Your task to perform on an android device: Empty the shopping cart on bestbuy.com. Add logitech g903 to the cart on bestbuy.com Image 0: 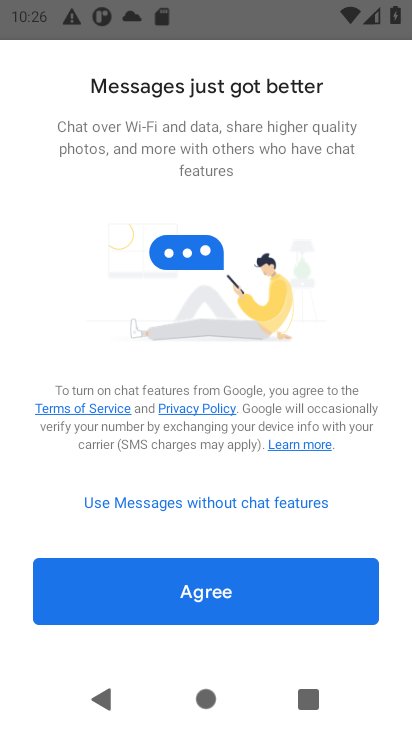
Step 0: press home button
Your task to perform on an android device: Empty the shopping cart on bestbuy.com. Add logitech g903 to the cart on bestbuy.com Image 1: 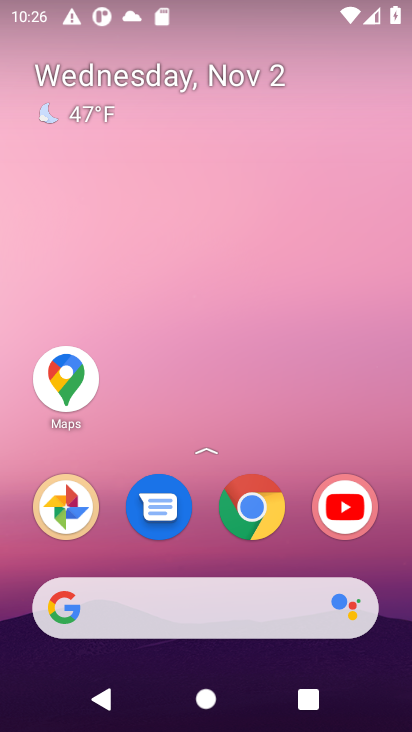
Step 1: click (195, 616)
Your task to perform on an android device: Empty the shopping cart on bestbuy.com. Add logitech g903 to the cart on bestbuy.com Image 2: 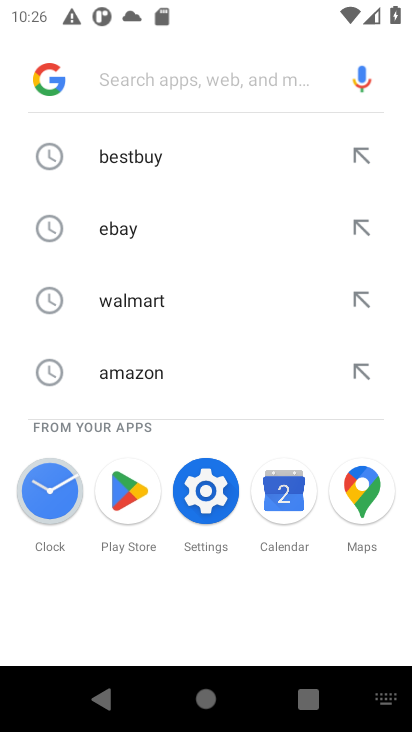
Step 2: click (116, 165)
Your task to perform on an android device: Empty the shopping cart on bestbuy.com. Add logitech g903 to the cart on bestbuy.com Image 3: 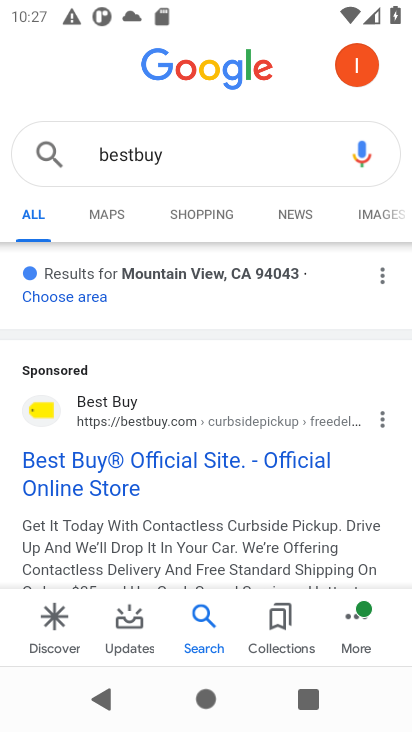
Step 3: click (107, 465)
Your task to perform on an android device: Empty the shopping cart on bestbuy.com. Add logitech g903 to the cart on bestbuy.com Image 4: 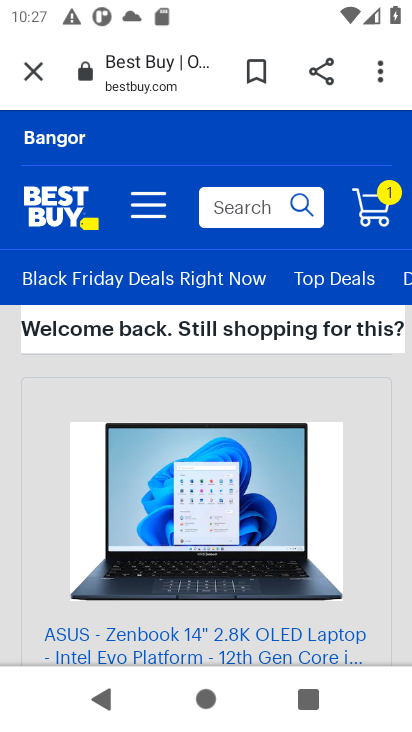
Step 4: click (260, 202)
Your task to perform on an android device: Empty the shopping cart on bestbuy.com. Add logitech g903 to the cart on bestbuy.com Image 5: 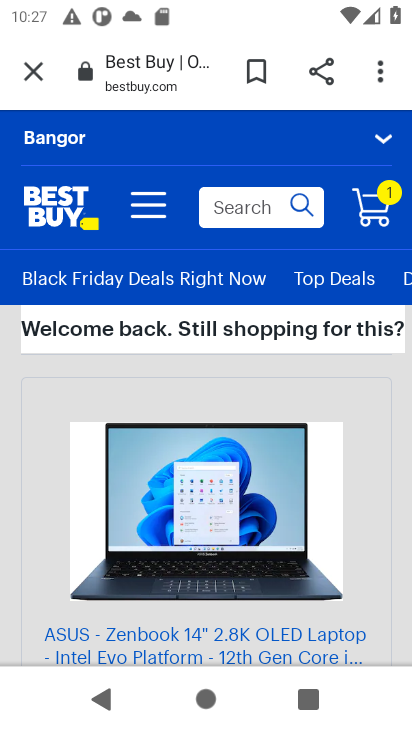
Step 5: type "logitech g903"
Your task to perform on an android device: Empty the shopping cart on bestbuy.com. Add logitech g903 to the cart on bestbuy.com Image 6: 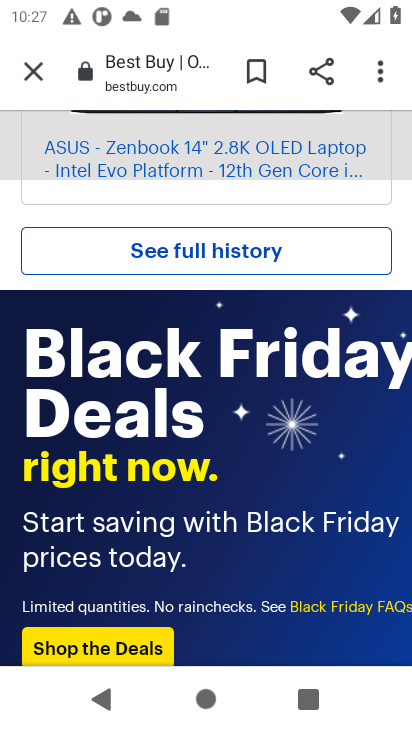
Step 6: task complete